Your task to perform on an android device: turn on airplane mode Image 0: 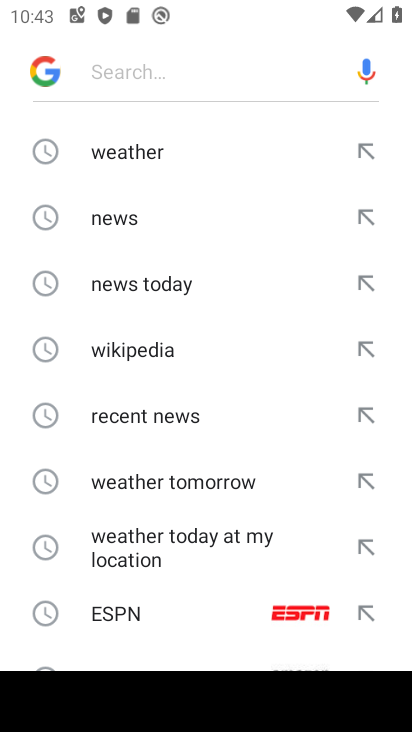
Step 0: press home button
Your task to perform on an android device: turn on airplane mode Image 1: 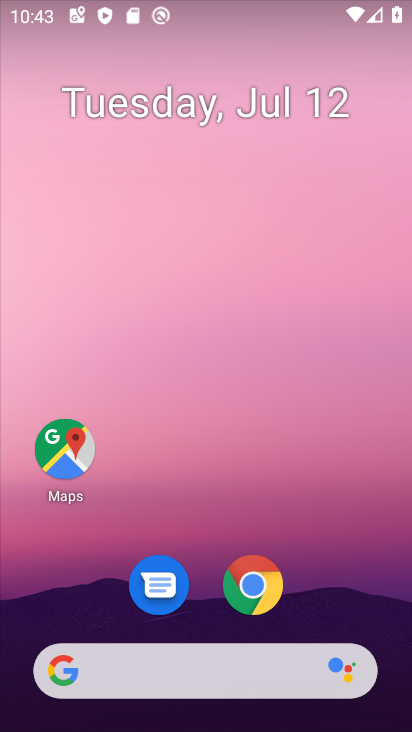
Step 1: drag from (326, 579) to (307, 30)
Your task to perform on an android device: turn on airplane mode Image 2: 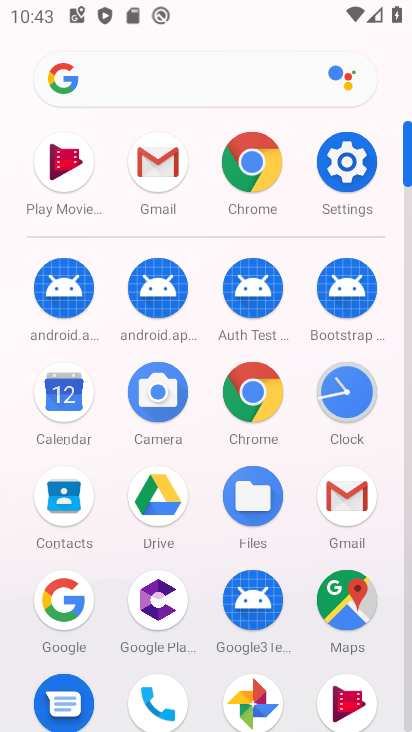
Step 2: click (344, 158)
Your task to perform on an android device: turn on airplane mode Image 3: 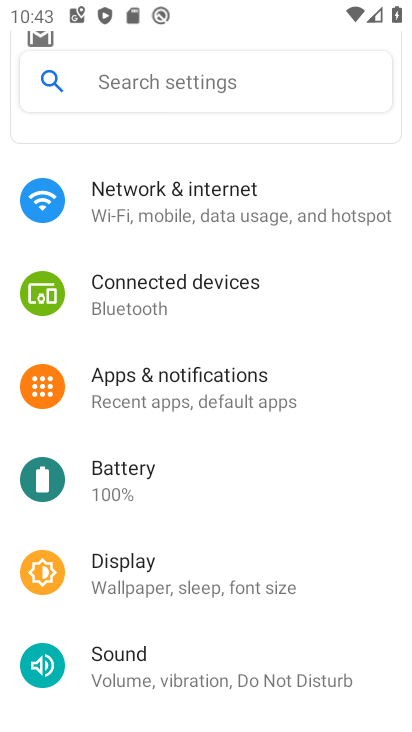
Step 3: click (271, 212)
Your task to perform on an android device: turn on airplane mode Image 4: 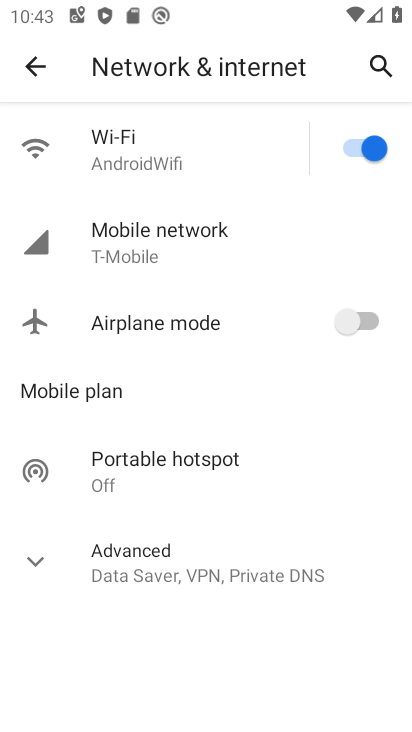
Step 4: click (360, 316)
Your task to perform on an android device: turn on airplane mode Image 5: 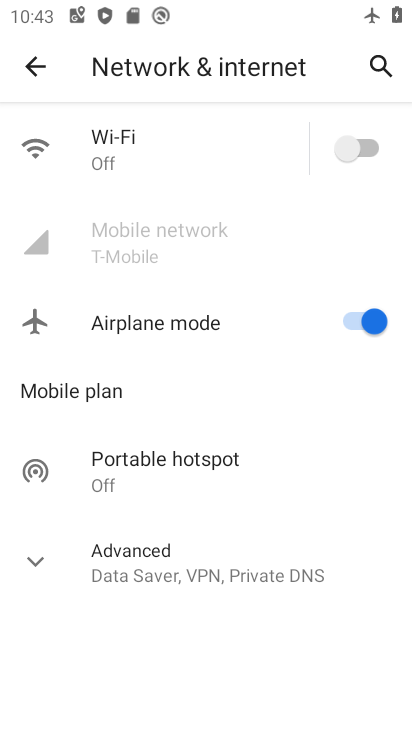
Step 5: task complete